Your task to perform on an android device: Open Android settings Image 0: 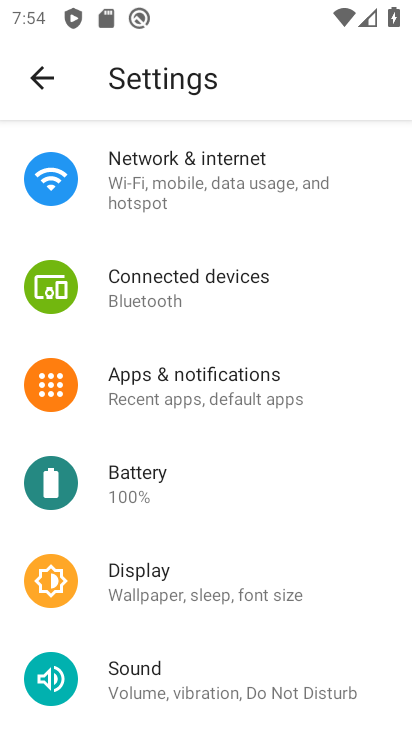
Step 0: drag from (253, 315) to (241, 554)
Your task to perform on an android device: Open Android settings Image 1: 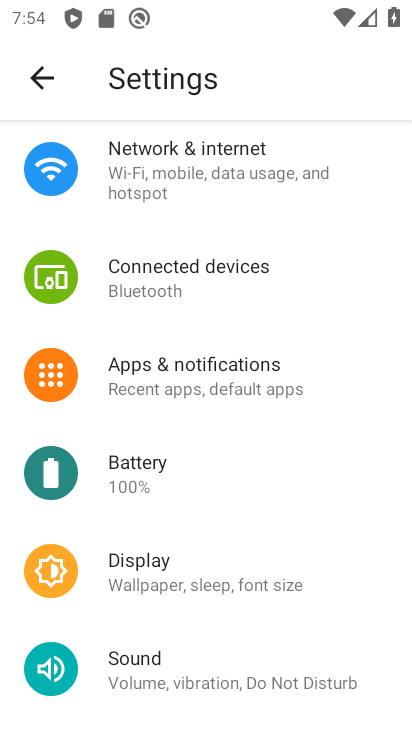
Step 1: press home button
Your task to perform on an android device: Open Android settings Image 2: 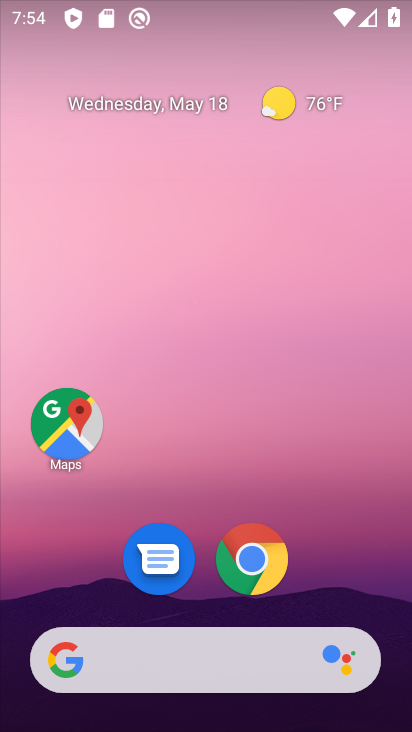
Step 2: drag from (214, 590) to (294, 11)
Your task to perform on an android device: Open Android settings Image 3: 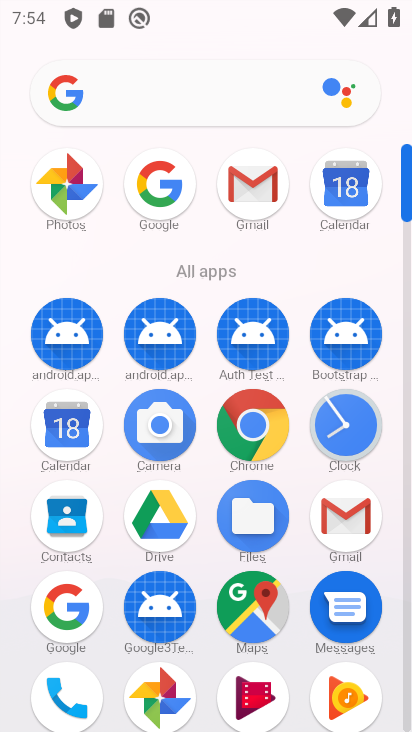
Step 3: drag from (215, 577) to (234, 111)
Your task to perform on an android device: Open Android settings Image 4: 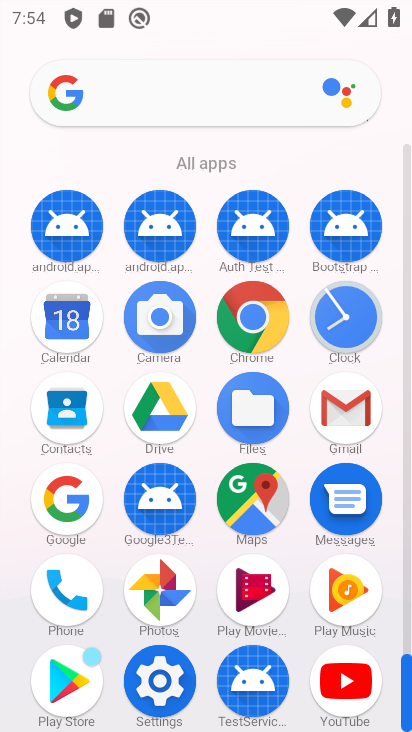
Step 4: click (153, 682)
Your task to perform on an android device: Open Android settings Image 5: 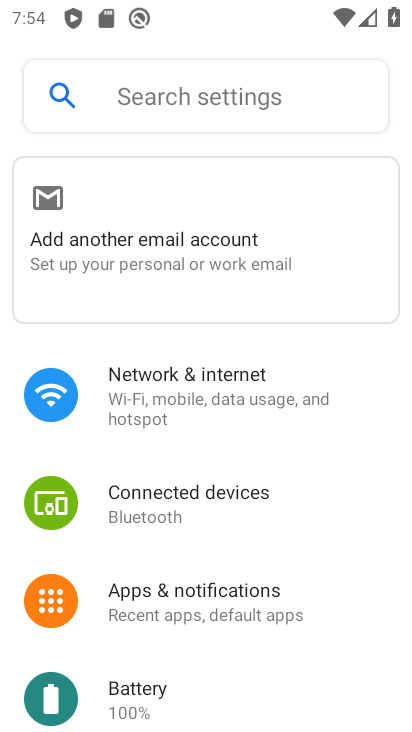
Step 5: task complete